Your task to perform on an android device: Search for Italian restaurants on Maps Image 0: 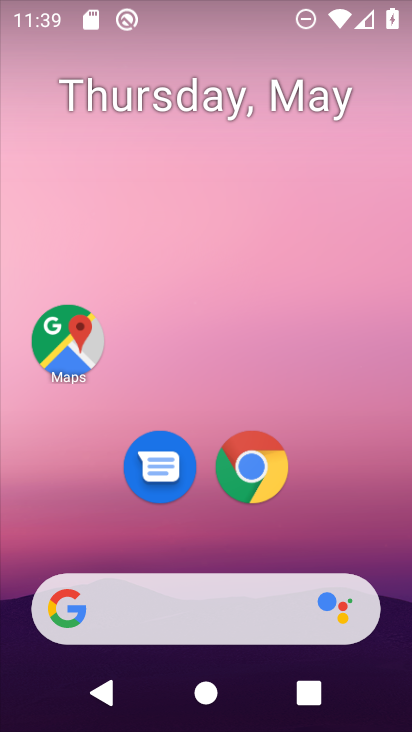
Step 0: press home button
Your task to perform on an android device: Search for Italian restaurants on Maps Image 1: 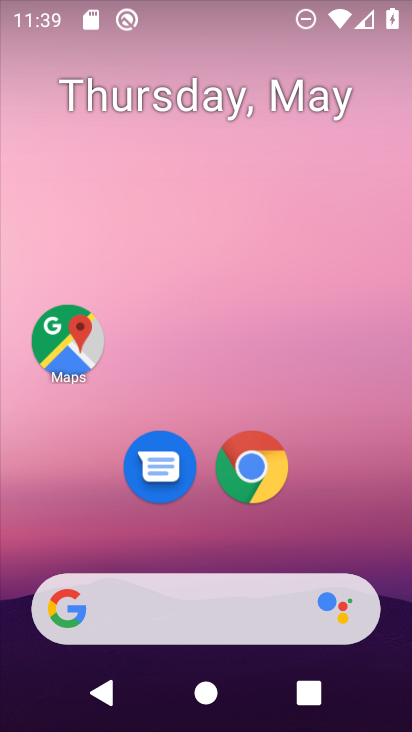
Step 1: drag from (233, 539) to (224, 213)
Your task to perform on an android device: Search for Italian restaurants on Maps Image 2: 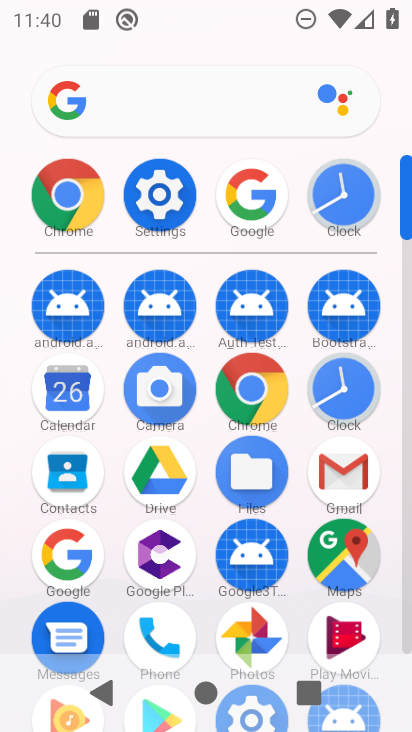
Step 2: drag from (204, 250) to (207, 89)
Your task to perform on an android device: Search for Italian restaurants on Maps Image 3: 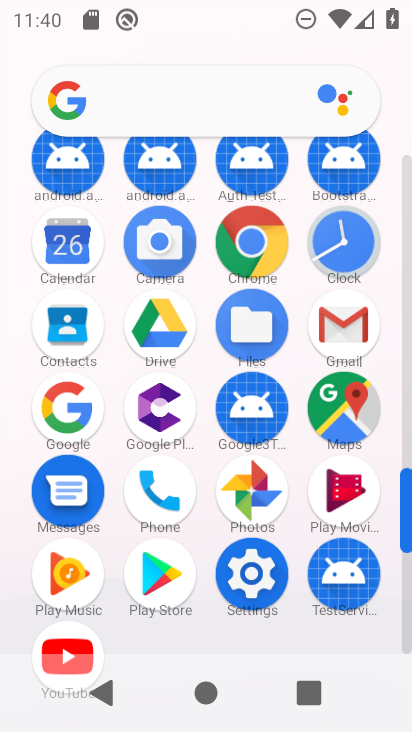
Step 3: click (341, 391)
Your task to perform on an android device: Search for Italian restaurants on Maps Image 4: 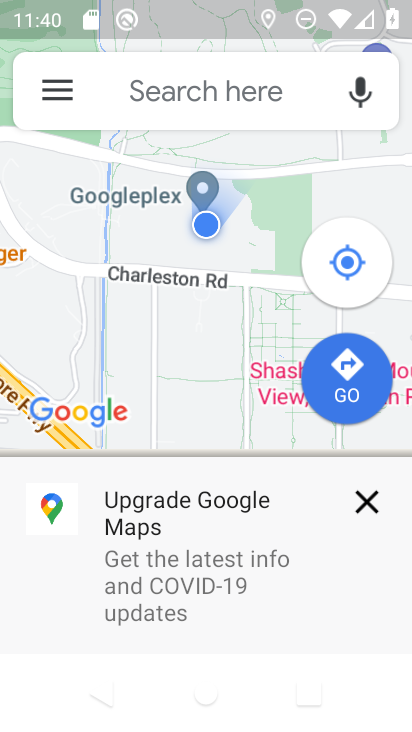
Step 4: click (344, 392)
Your task to perform on an android device: Search for Italian restaurants on Maps Image 5: 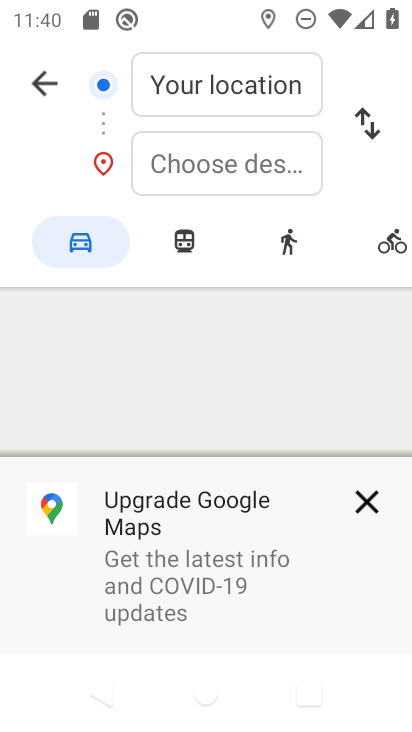
Step 5: click (344, 392)
Your task to perform on an android device: Search for Italian restaurants on Maps Image 6: 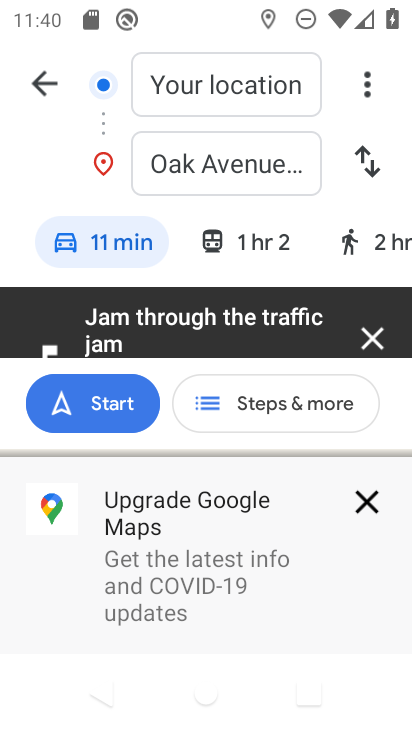
Step 6: click (374, 339)
Your task to perform on an android device: Search for Italian restaurants on Maps Image 7: 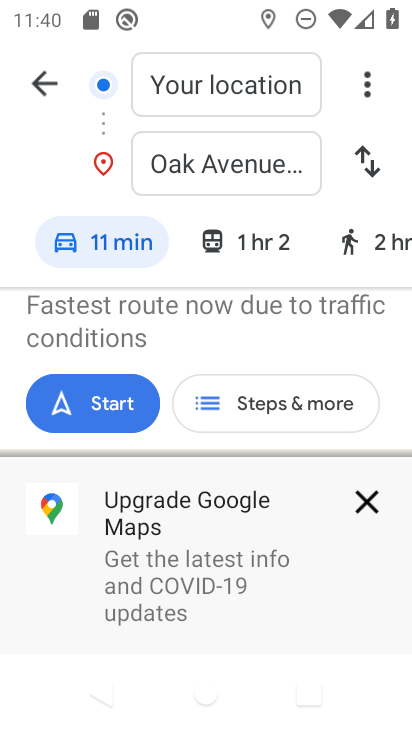
Step 7: press back button
Your task to perform on an android device: Search for Italian restaurants on Maps Image 8: 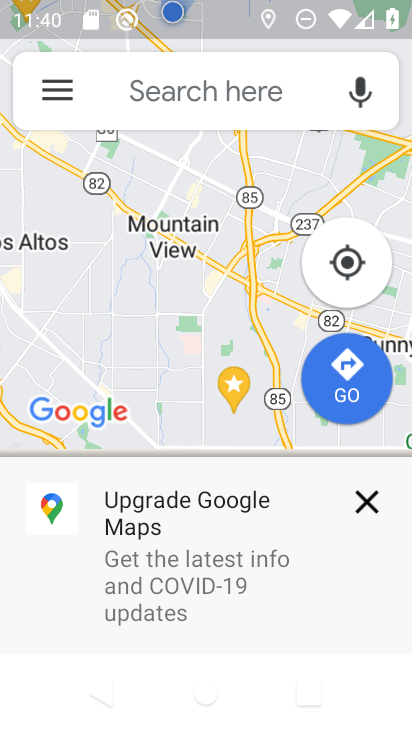
Step 8: click (212, 80)
Your task to perform on an android device: Search for Italian restaurants on Maps Image 9: 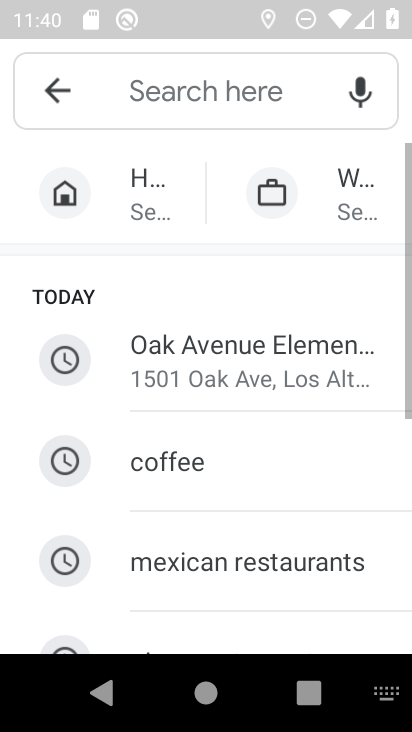
Step 9: drag from (285, 495) to (244, 197)
Your task to perform on an android device: Search for Italian restaurants on Maps Image 10: 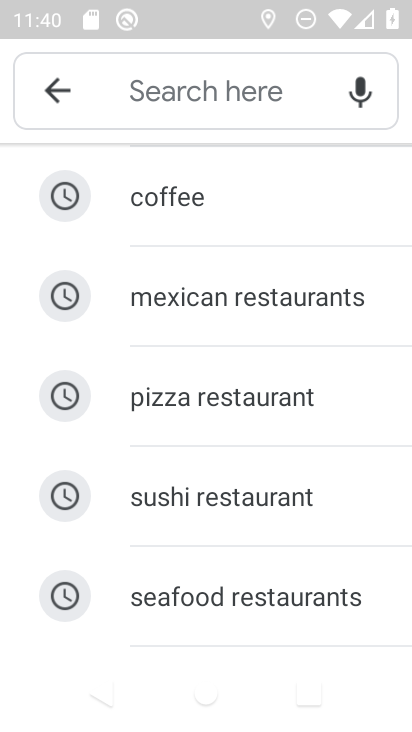
Step 10: drag from (239, 572) to (237, 195)
Your task to perform on an android device: Search for Italian restaurants on Maps Image 11: 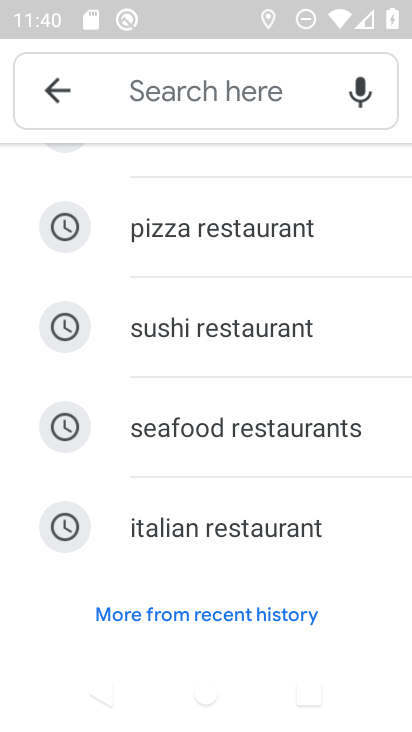
Step 11: click (241, 529)
Your task to perform on an android device: Search for Italian restaurants on Maps Image 12: 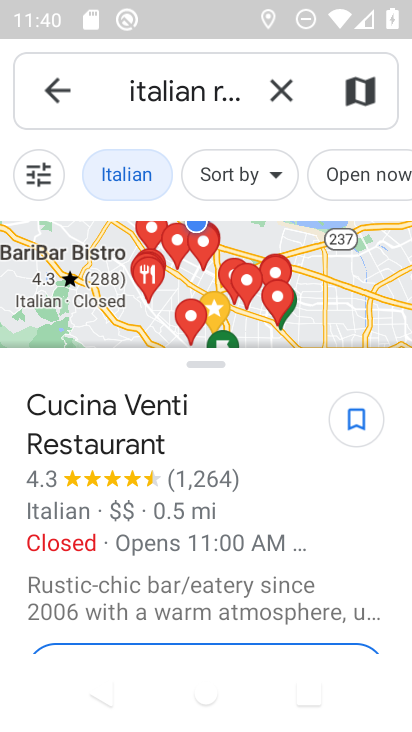
Step 12: task complete